Your task to perform on an android device: Go to Yahoo.com Image 0: 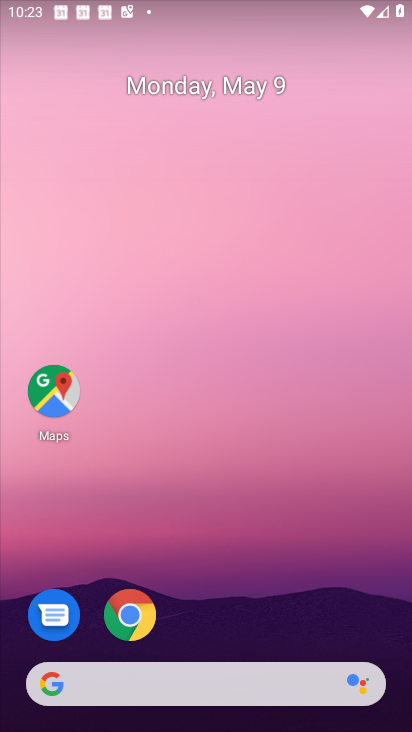
Step 0: drag from (263, 698) to (220, 206)
Your task to perform on an android device: Go to Yahoo.com Image 1: 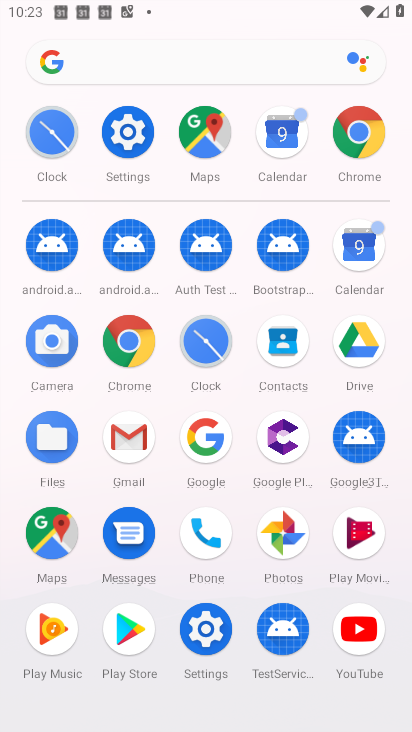
Step 1: click (366, 144)
Your task to perform on an android device: Go to Yahoo.com Image 2: 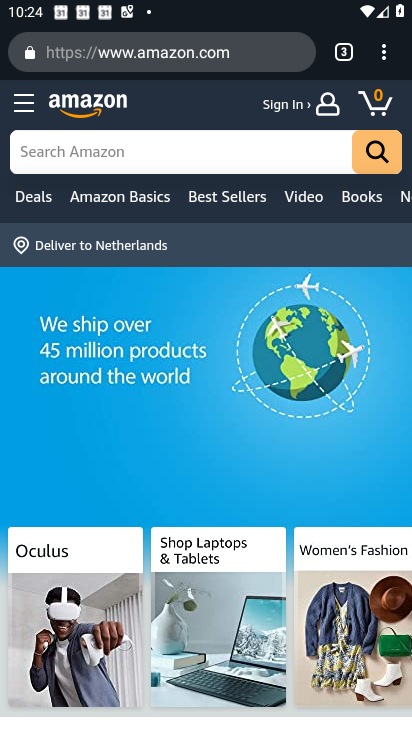
Step 2: click (341, 63)
Your task to perform on an android device: Go to Yahoo.com Image 3: 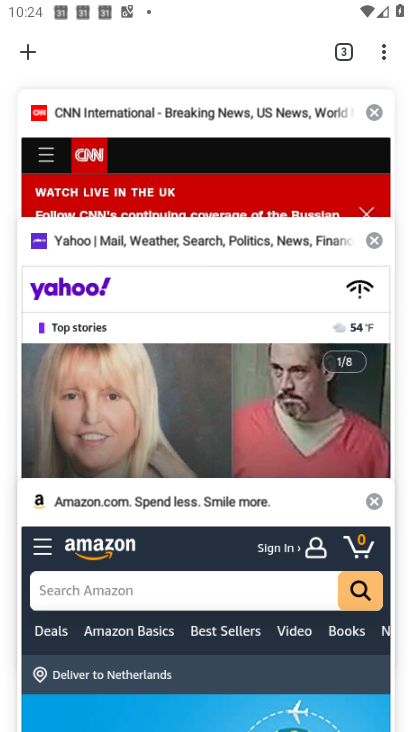
Step 3: click (43, 53)
Your task to perform on an android device: Go to Yahoo.com Image 4: 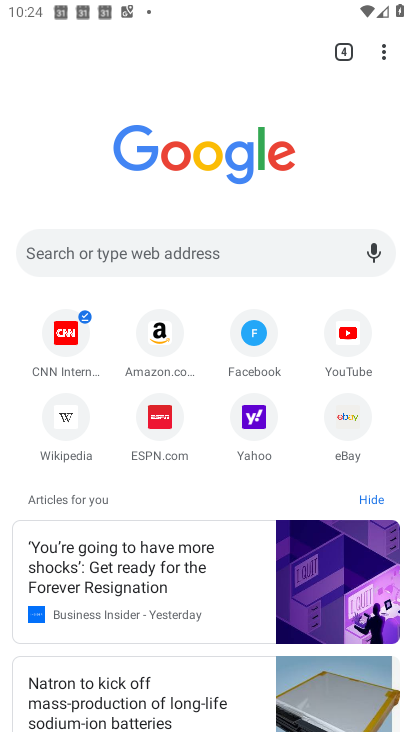
Step 4: click (255, 416)
Your task to perform on an android device: Go to Yahoo.com Image 5: 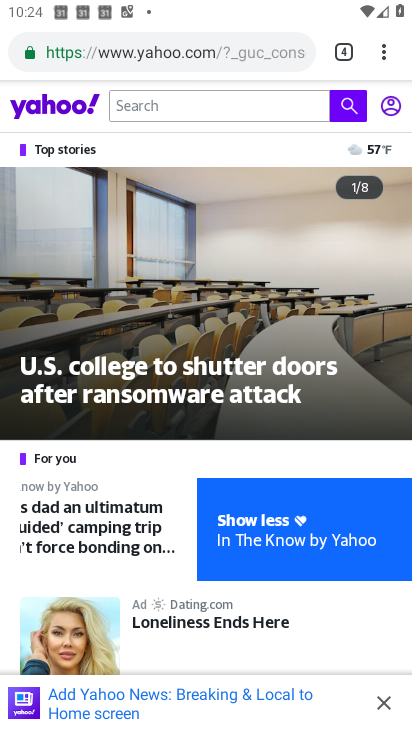
Step 5: task complete